Your task to perform on an android device: set an alarm Image 0: 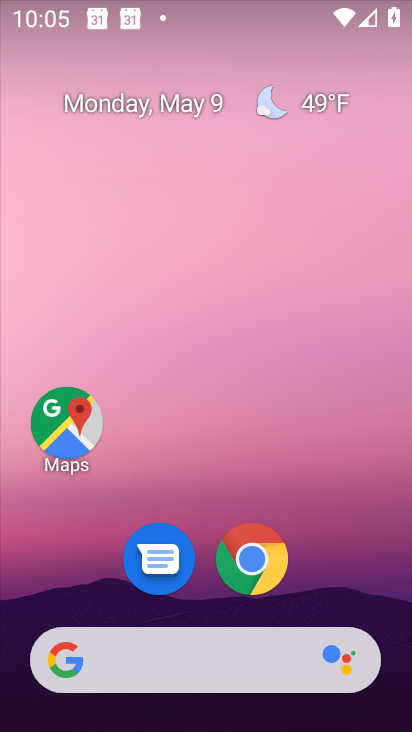
Step 0: drag from (197, 721) to (196, 140)
Your task to perform on an android device: set an alarm Image 1: 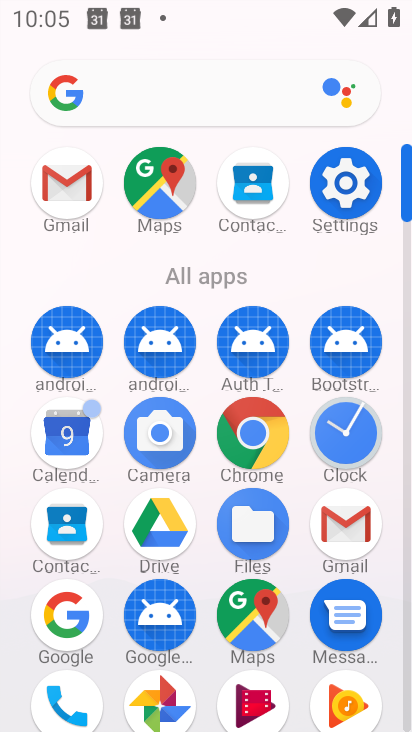
Step 1: click (346, 431)
Your task to perform on an android device: set an alarm Image 2: 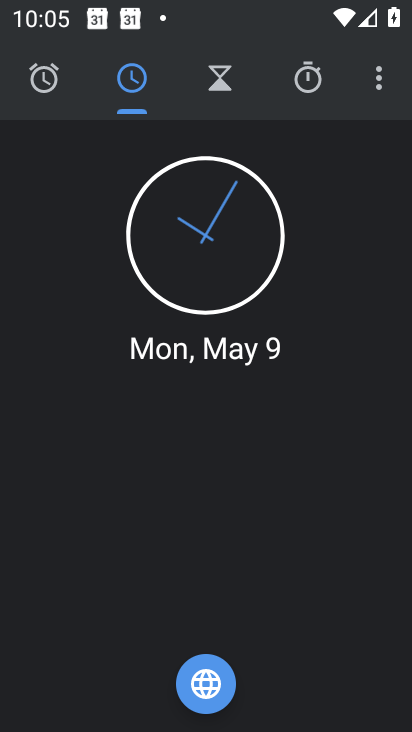
Step 2: click (47, 78)
Your task to perform on an android device: set an alarm Image 3: 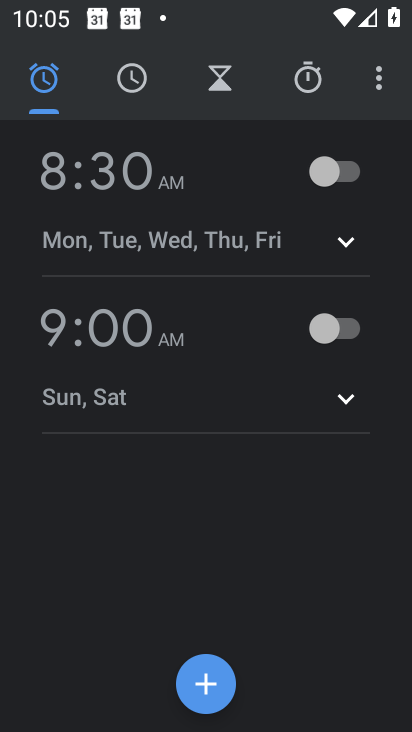
Step 3: click (208, 692)
Your task to perform on an android device: set an alarm Image 4: 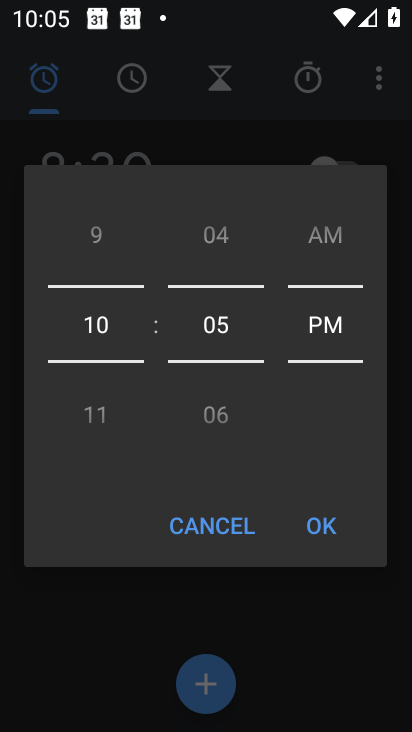
Step 4: drag from (104, 233) to (104, 430)
Your task to perform on an android device: set an alarm Image 5: 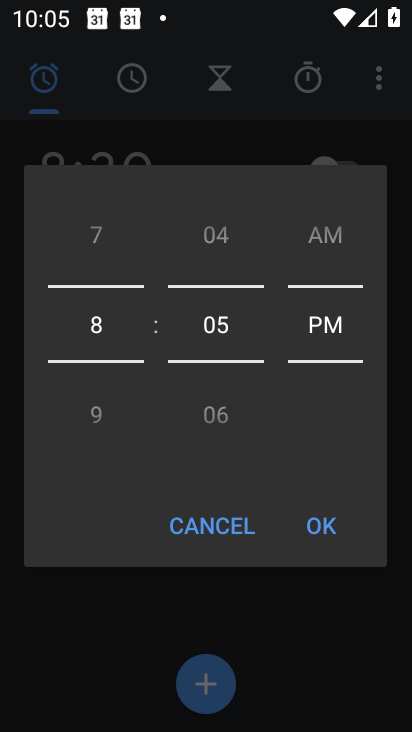
Step 5: drag from (228, 228) to (232, 405)
Your task to perform on an android device: set an alarm Image 6: 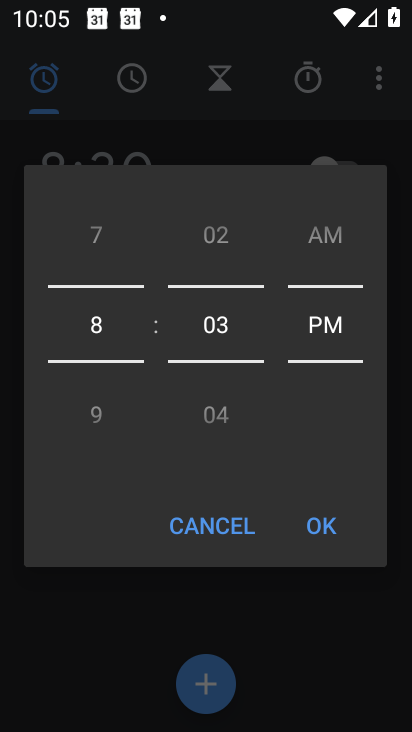
Step 6: drag from (330, 251) to (328, 377)
Your task to perform on an android device: set an alarm Image 7: 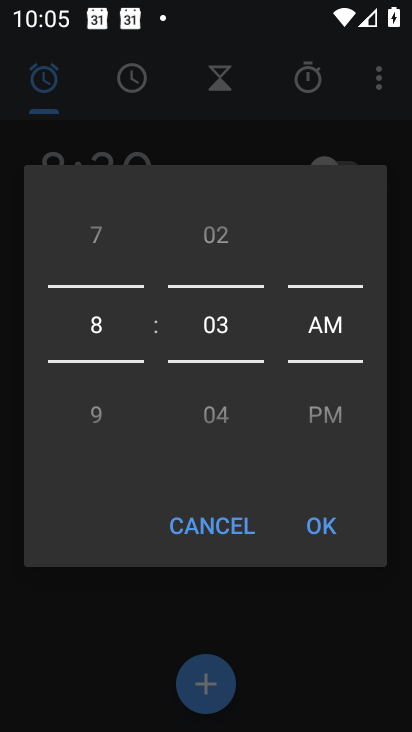
Step 7: click (319, 518)
Your task to perform on an android device: set an alarm Image 8: 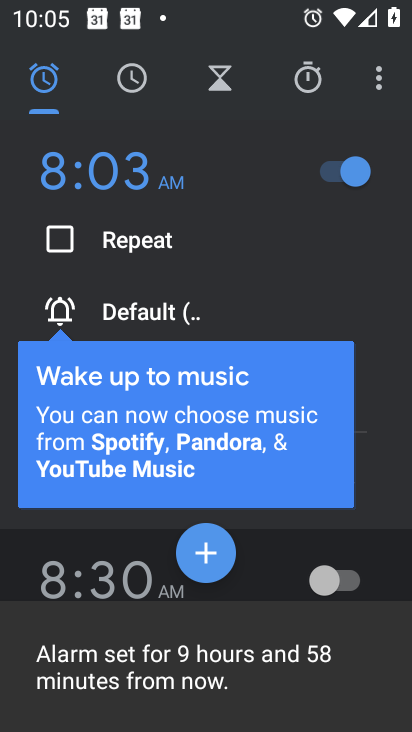
Step 8: task complete